Your task to perform on an android device: Find coffee shops on Maps Image 0: 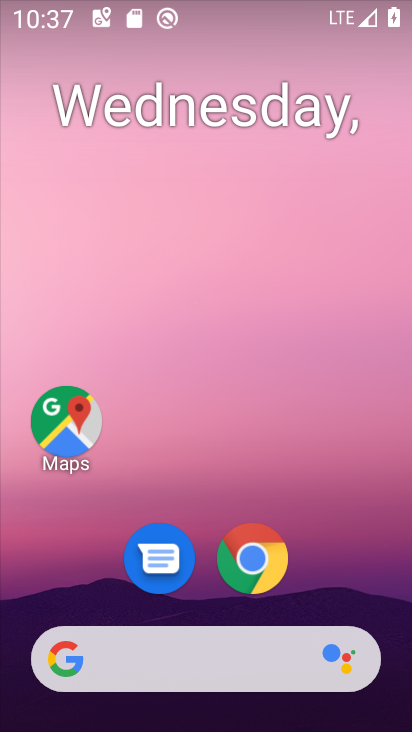
Step 0: click (76, 407)
Your task to perform on an android device: Find coffee shops on Maps Image 1: 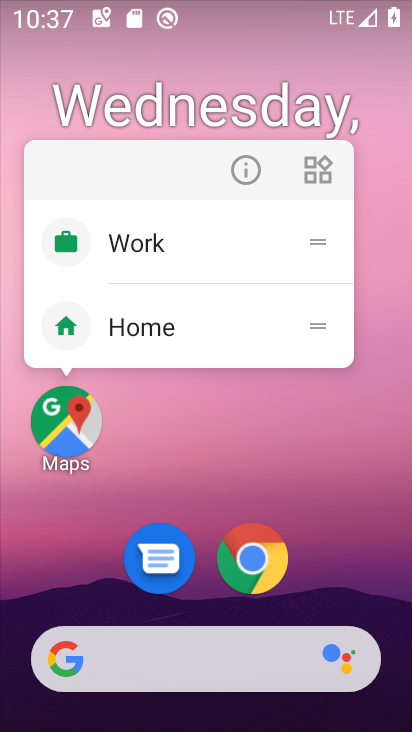
Step 1: click (75, 428)
Your task to perform on an android device: Find coffee shops on Maps Image 2: 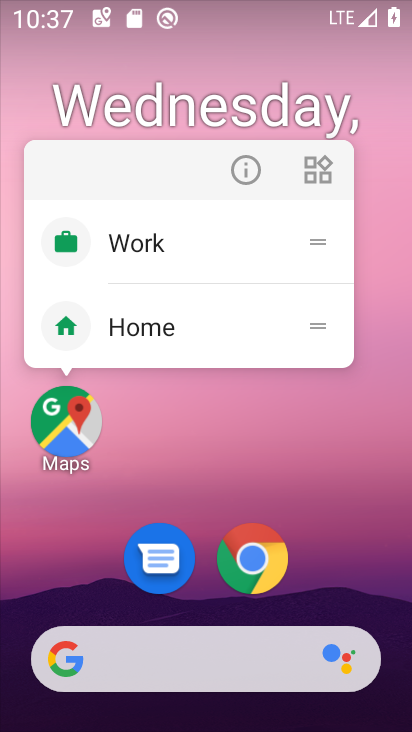
Step 2: click (46, 414)
Your task to perform on an android device: Find coffee shops on Maps Image 3: 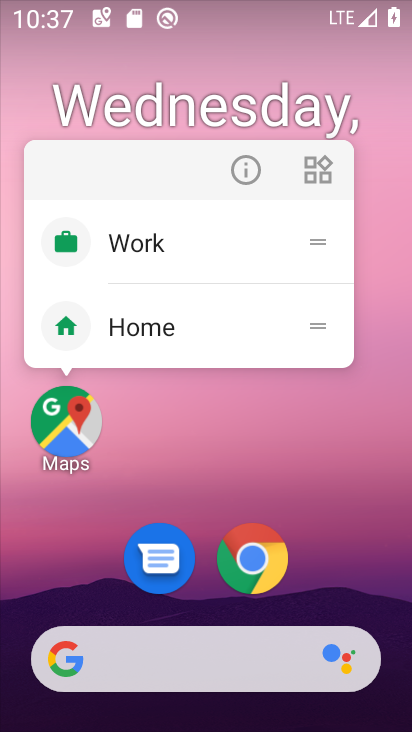
Step 3: click (46, 407)
Your task to perform on an android device: Find coffee shops on Maps Image 4: 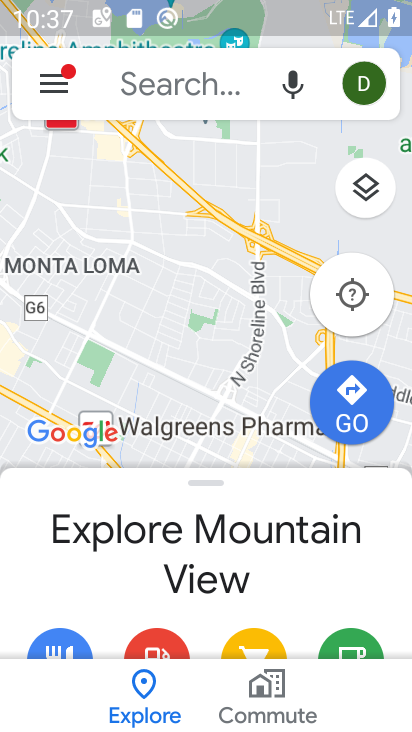
Step 4: click (232, 79)
Your task to perform on an android device: Find coffee shops on Maps Image 5: 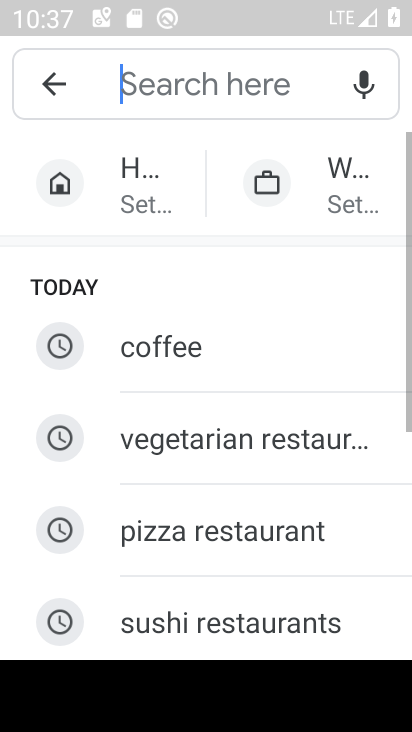
Step 5: click (165, 348)
Your task to perform on an android device: Find coffee shops on Maps Image 6: 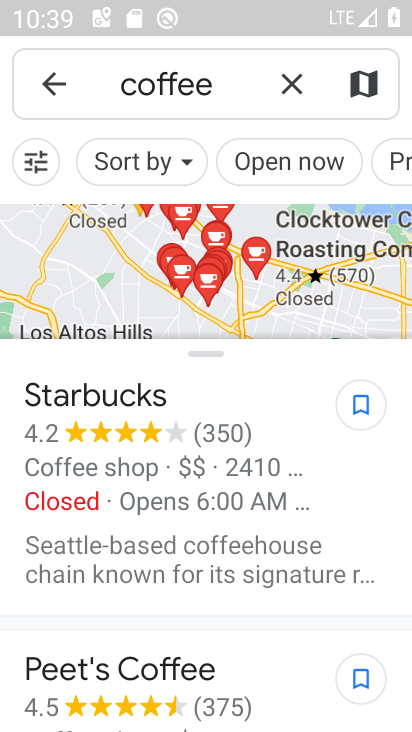
Step 6: task complete